Your task to perform on an android device: Check the weather Image 0: 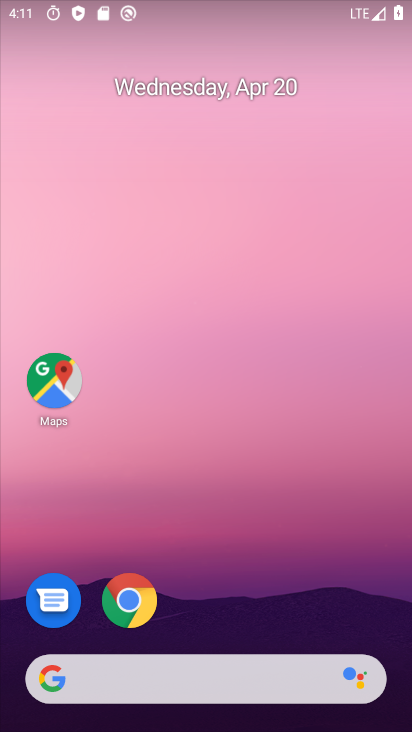
Step 0: click (250, 556)
Your task to perform on an android device: Check the weather Image 1: 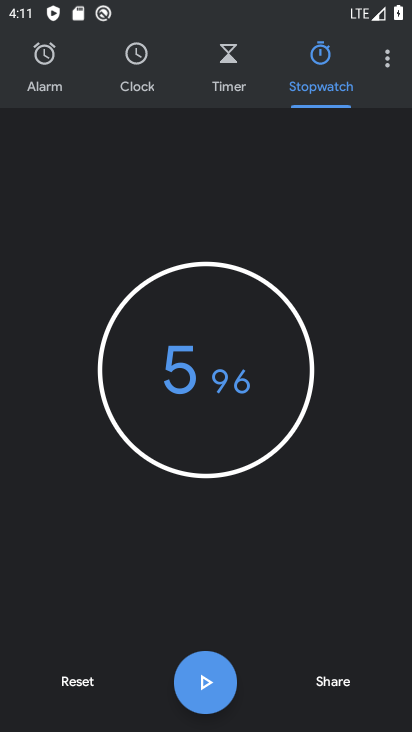
Step 1: press home button
Your task to perform on an android device: Check the weather Image 2: 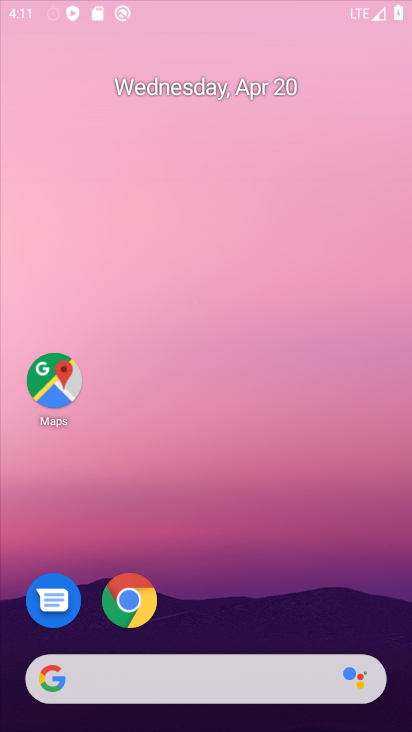
Step 2: drag from (199, 0) to (226, 335)
Your task to perform on an android device: Check the weather Image 3: 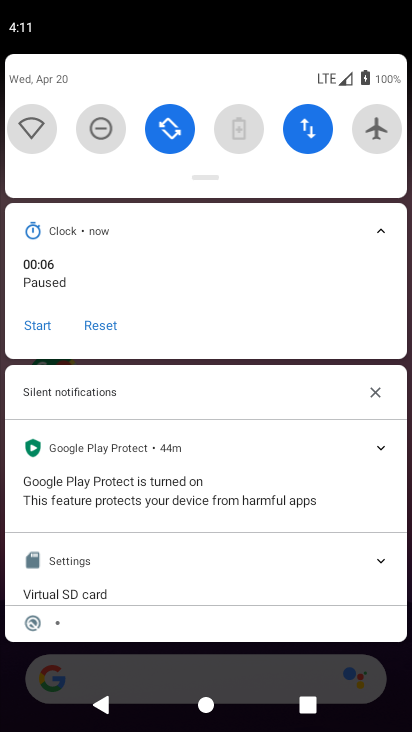
Step 3: drag from (261, 169) to (263, 348)
Your task to perform on an android device: Check the weather Image 4: 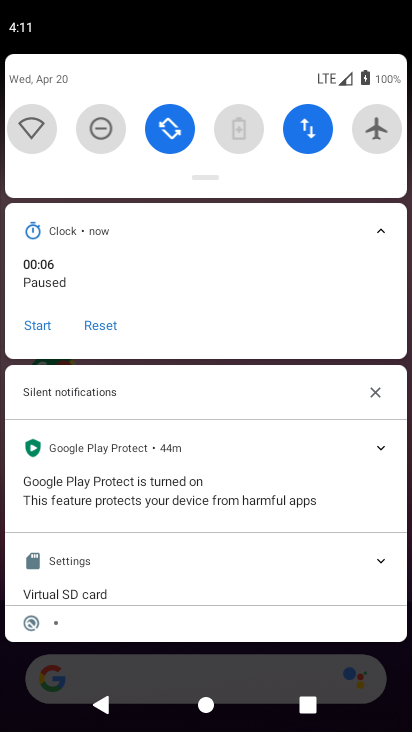
Step 4: drag from (284, 653) to (304, 10)
Your task to perform on an android device: Check the weather Image 5: 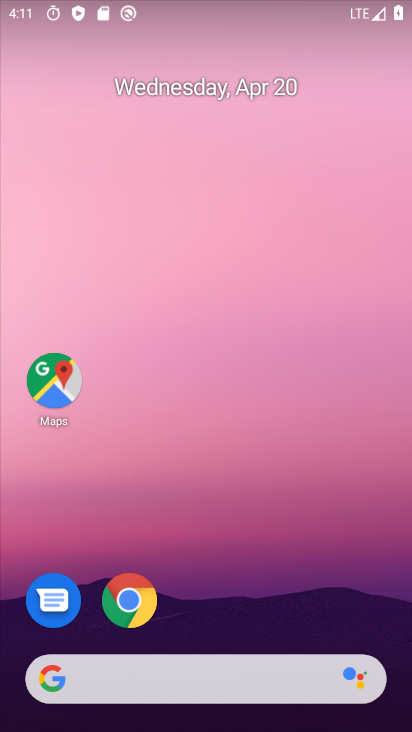
Step 5: drag from (225, 481) to (217, 97)
Your task to perform on an android device: Check the weather Image 6: 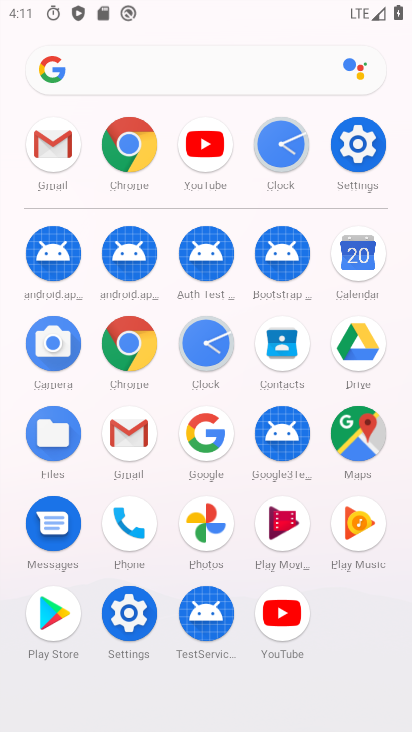
Step 6: click (117, 342)
Your task to perform on an android device: Check the weather Image 7: 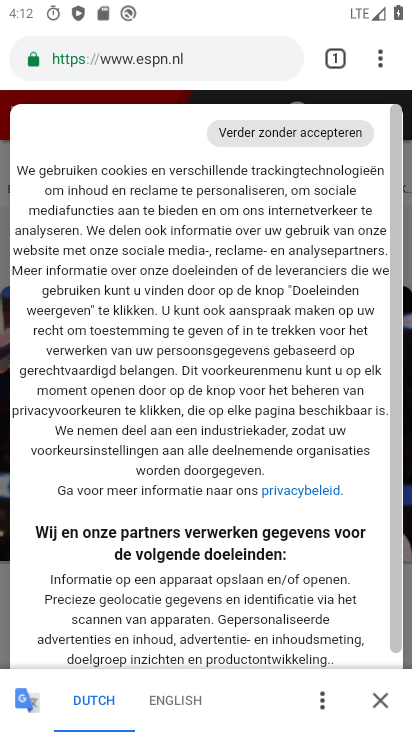
Step 7: click (175, 49)
Your task to perform on an android device: Check the weather Image 8: 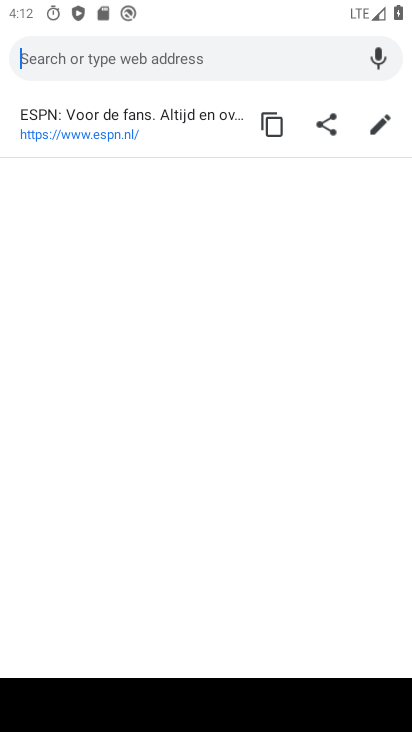
Step 8: type "weather"
Your task to perform on an android device: Check the weather Image 9: 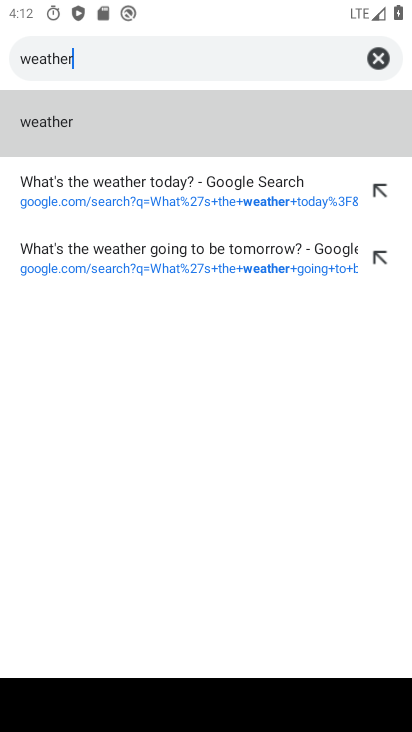
Step 9: click (81, 117)
Your task to perform on an android device: Check the weather Image 10: 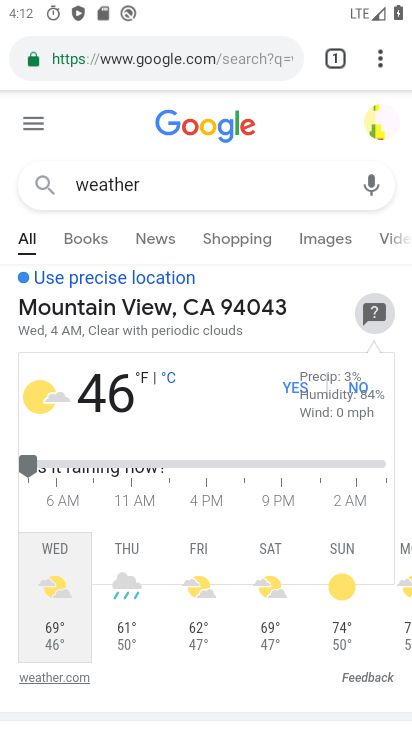
Step 10: task complete